Your task to perform on an android device: see sites visited before in the chrome app Image 0: 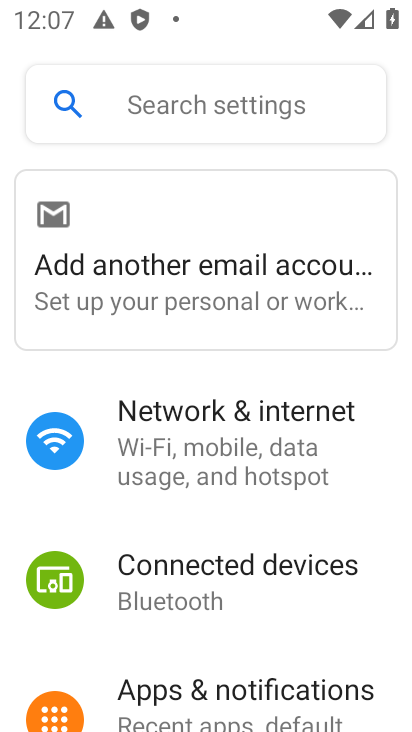
Step 0: press home button
Your task to perform on an android device: see sites visited before in the chrome app Image 1: 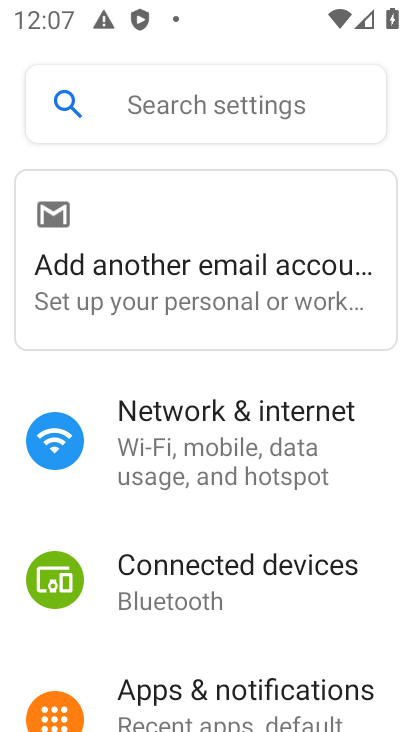
Step 1: press home button
Your task to perform on an android device: see sites visited before in the chrome app Image 2: 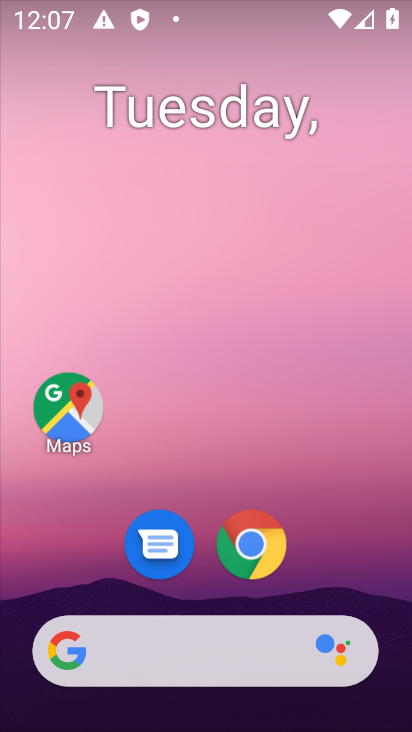
Step 2: drag from (331, 427) to (285, 0)
Your task to perform on an android device: see sites visited before in the chrome app Image 3: 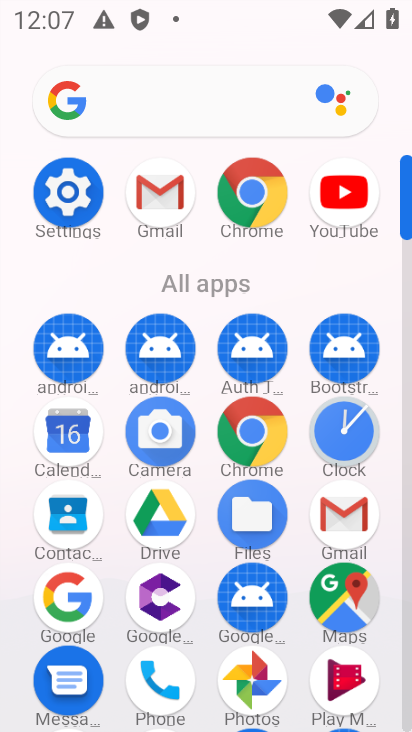
Step 3: click (260, 436)
Your task to perform on an android device: see sites visited before in the chrome app Image 4: 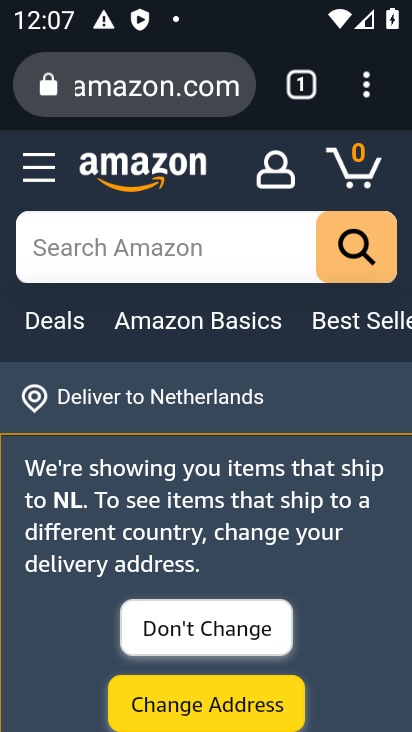
Step 4: task complete